Your task to perform on an android device: Open Google Chrome Image 0: 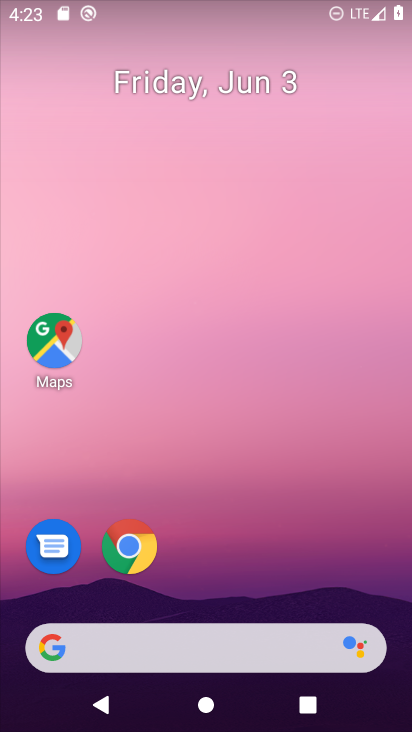
Step 0: click (137, 556)
Your task to perform on an android device: Open Google Chrome Image 1: 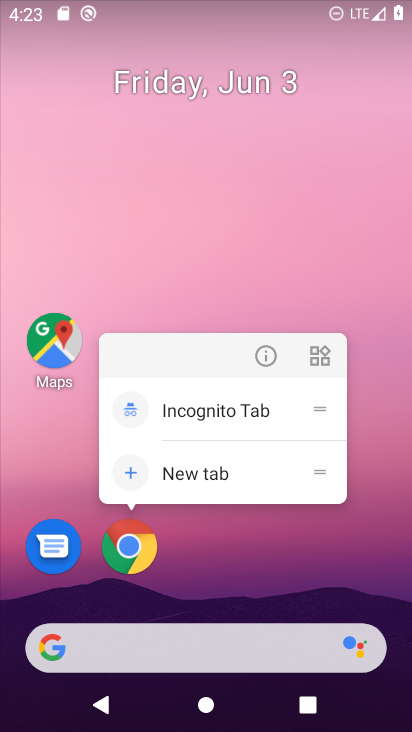
Step 1: click (142, 553)
Your task to perform on an android device: Open Google Chrome Image 2: 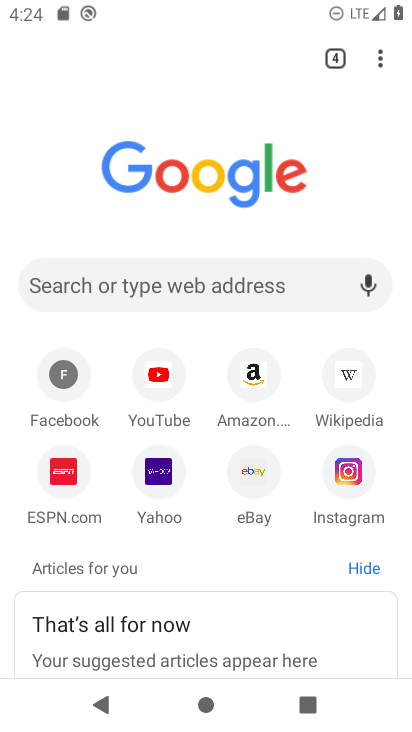
Step 2: task complete